Your task to perform on an android device: toggle airplane mode Image 0: 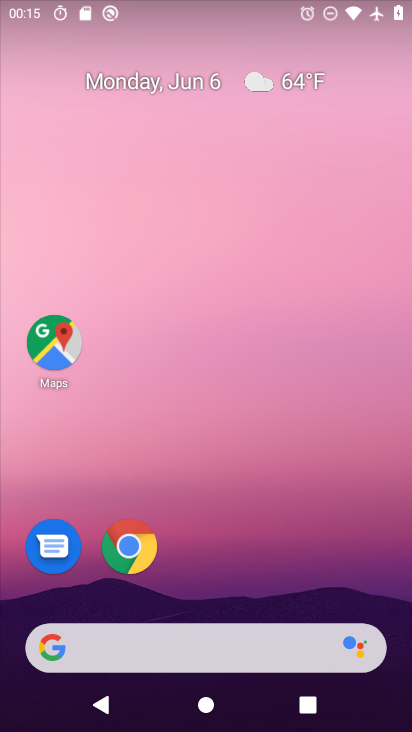
Step 0: click (262, 167)
Your task to perform on an android device: toggle airplane mode Image 1: 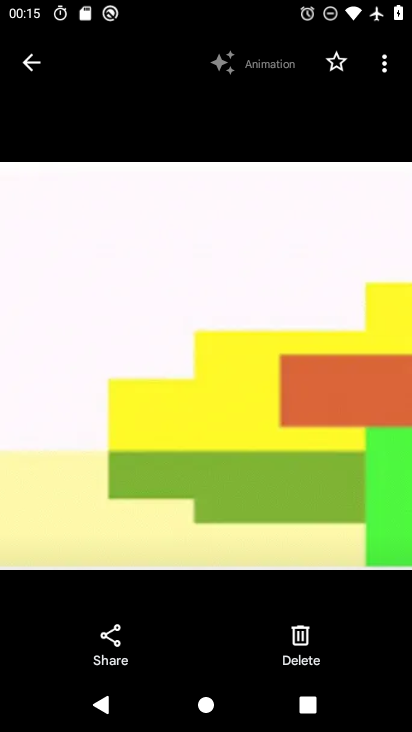
Step 1: press back button
Your task to perform on an android device: toggle airplane mode Image 2: 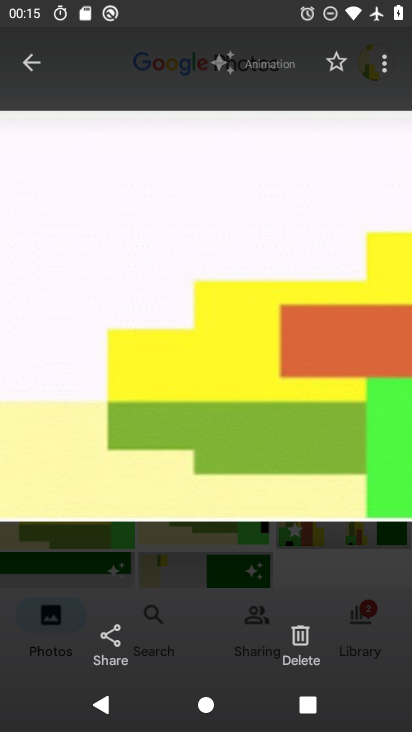
Step 2: press home button
Your task to perform on an android device: toggle airplane mode Image 3: 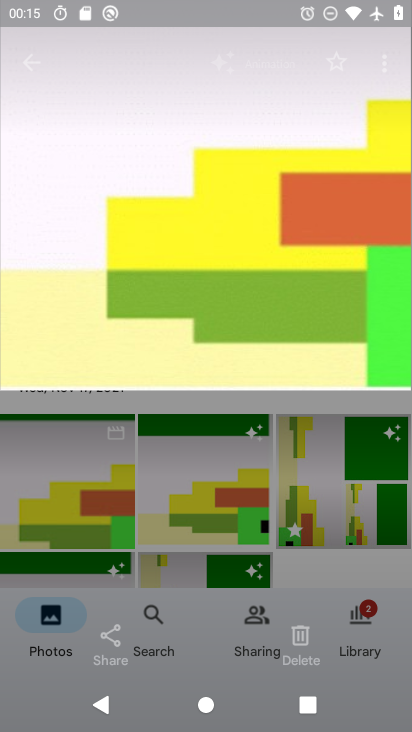
Step 3: drag from (265, 308) to (281, 165)
Your task to perform on an android device: toggle airplane mode Image 4: 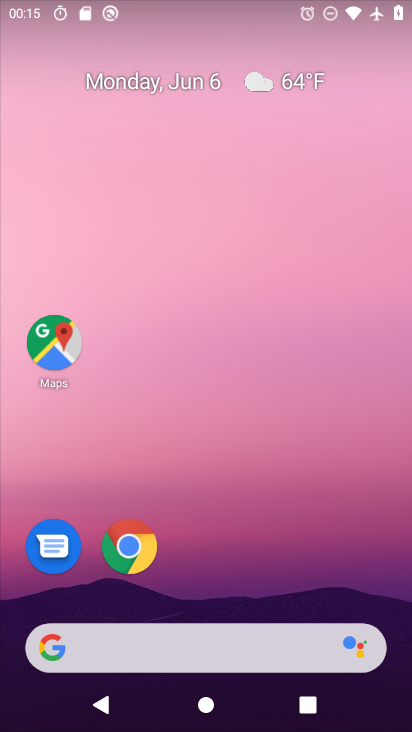
Step 4: drag from (194, 519) to (261, 136)
Your task to perform on an android device: toggle airplane mode Image 5: 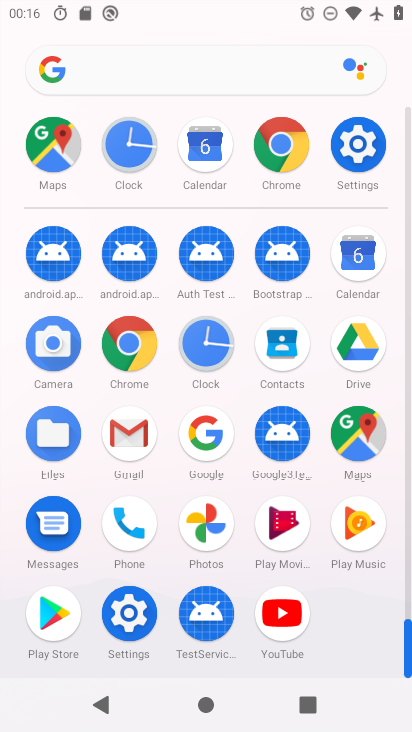
Step 5: click (363, 143)
Your task to perform on an android device: toggle airplane mode Image 6: 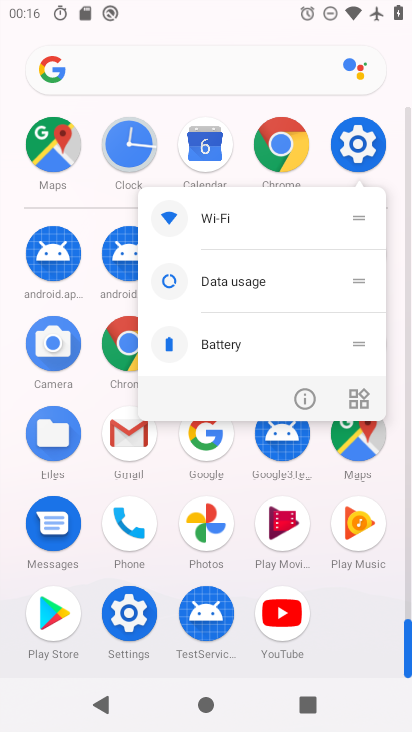
Step 6: click (310, 400)
Your task to perform on an android device: toggle airplane mode Image 7: 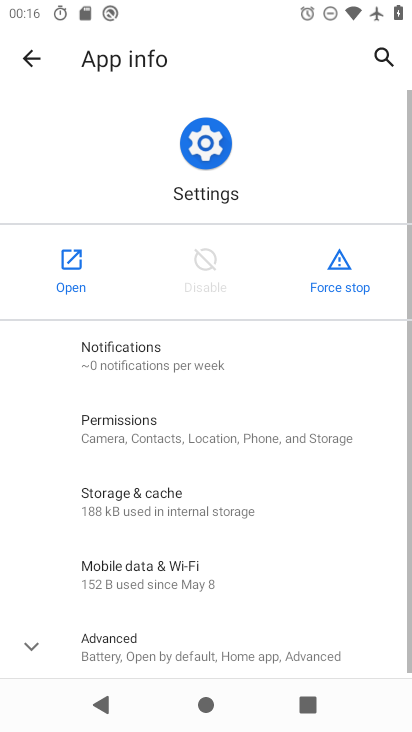
Step 7: click (72, 264)
Your task to perform on an android device: toggle airplane mode Image 8: 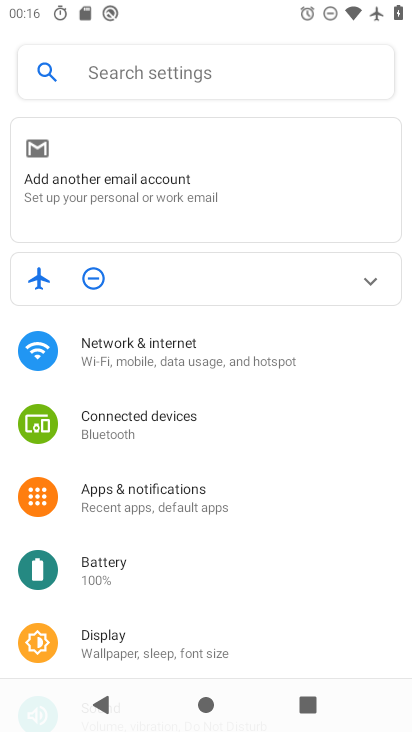
Step 8: drag from (222, 516) to (251, 159)
Your task to perform on an android device: toggle airplane mode Image 9: 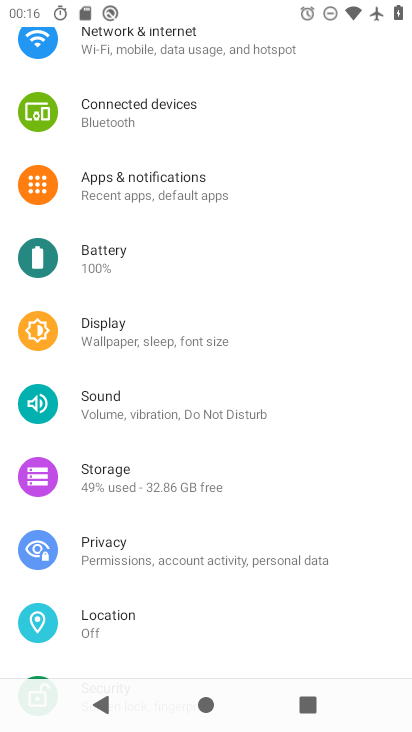
Step 9: drag from (197, 51) to (287, 266)
Your task to perform on an android device: toggle airplane mode Image 10: 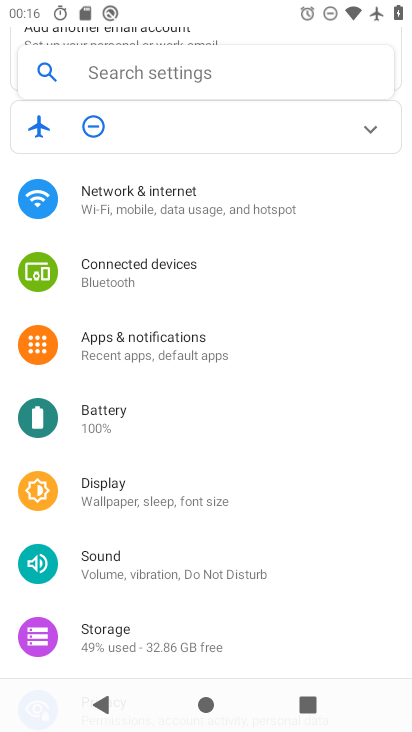
Step 10: click (211, 200)
Your task to perform on an android device: toggle airplane mode Image 11: 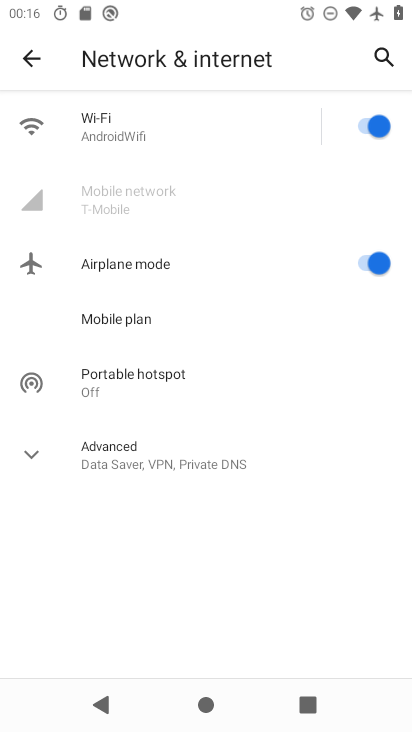
Step 11: drag from (229, 418) to (235, 202)
Your task to perform on an android device: toggle airplane mode Image 12: 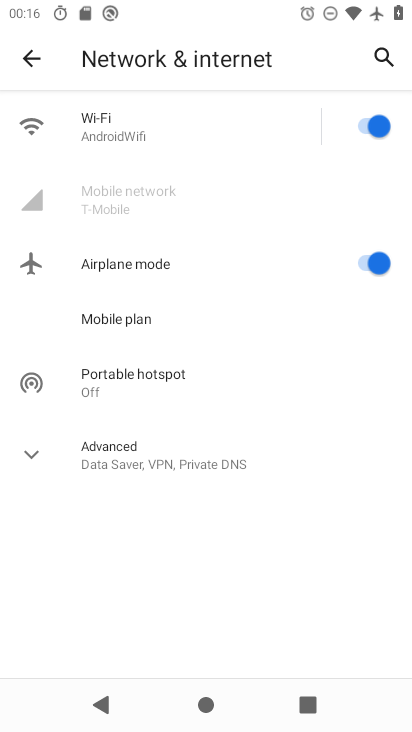
Step 12: click (353, 265)
Your task to perform on an android device: toggle airplane mode Image 13: 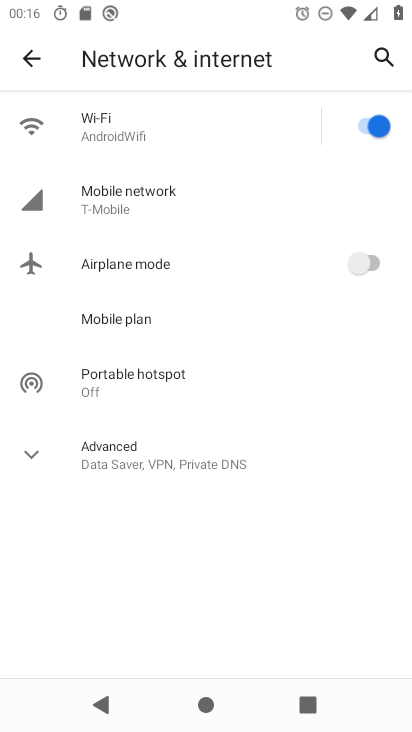
Step 13: task complete